Your task to perform on an android device: Turn on the flashlight Image 0: 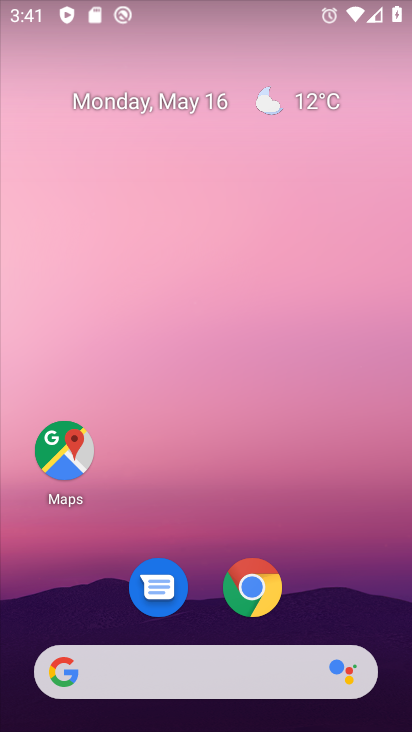
Step 0: drag from (391, 619) to (381, 233)
Your task to perform on an android device: Turn on the flashlight Image 1: 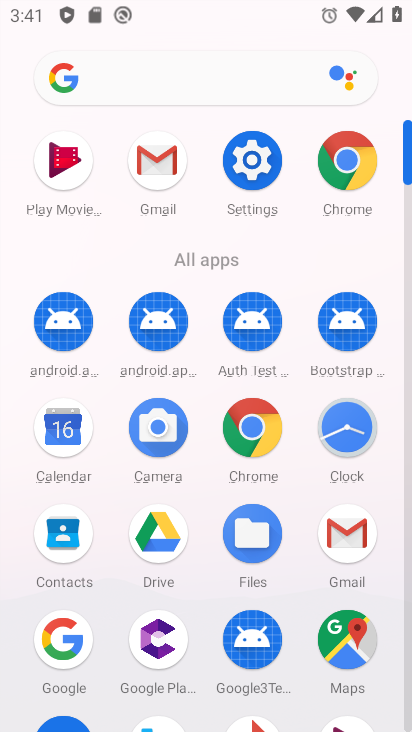
Step 1: click (244, 172)
Your task to perform on an android device: Turn on the flashlight Image 2: 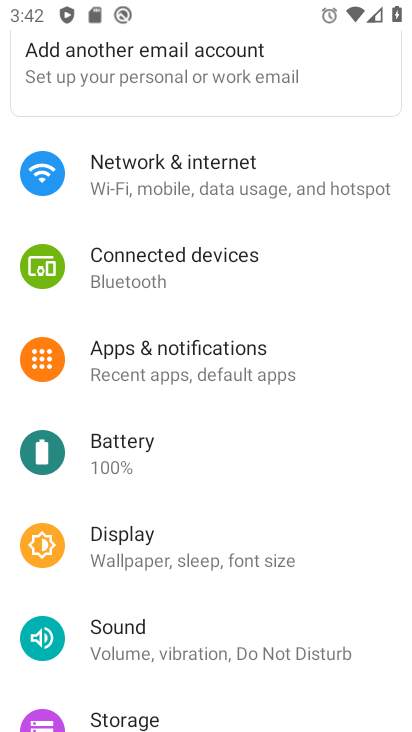
Step 2: click (144, 176)
Your task to perform on an android device: Turn on the flashlight Image 3: 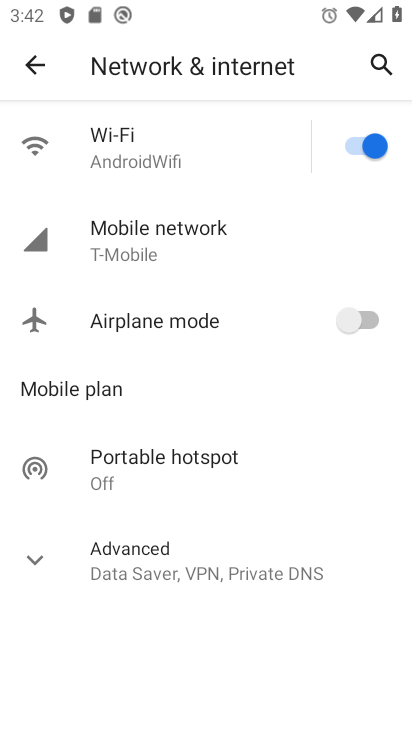
Step 3: task complete